Your task to perform on an android device: toggle show notifications on the lock screen Image 0: 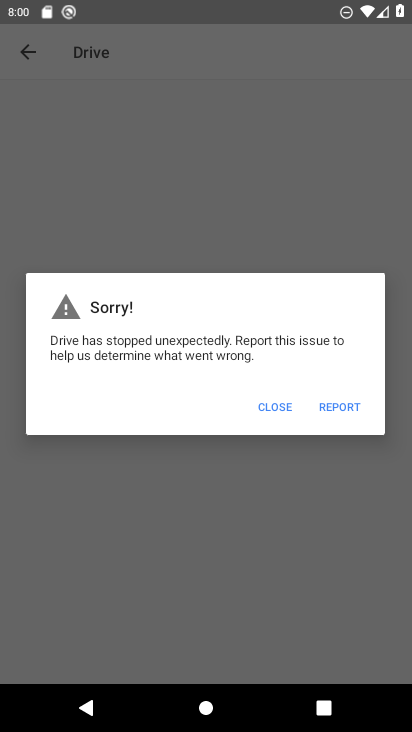
Step 0: press back button
Your task to perform on an android device: toggle show notifications on the lock screen Image 1: 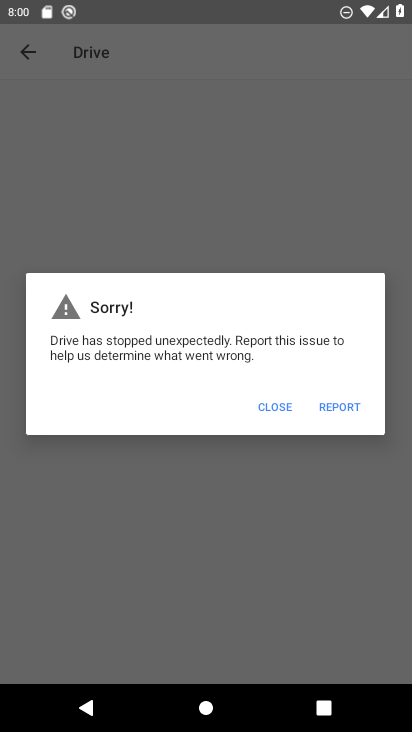
Step 1: press home button
Your task to perform on an android device: toggle show notifications on the lock screen Image 2: 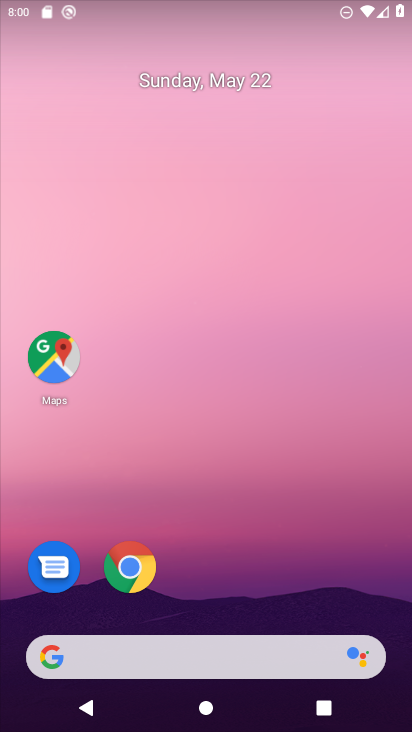
Step 2: drag from (214, 448) to (335, 55)
Your task to perform on an android device: toggle show notifications on the lock screen Image 3: 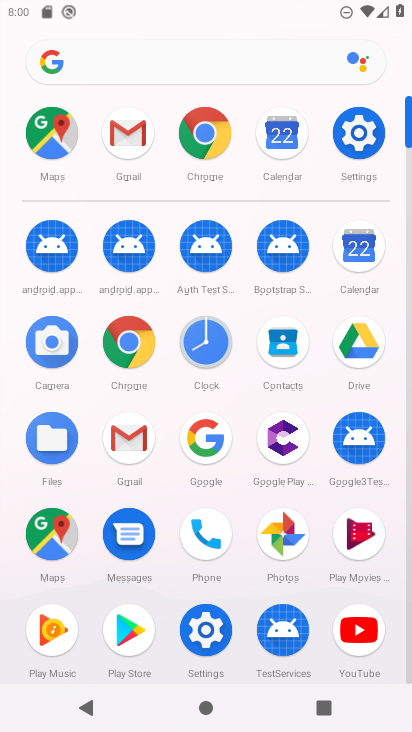
Step 3: click (356, 139)
Your task to perform on an android device: toggle show notifications on the lock screen Image 4: 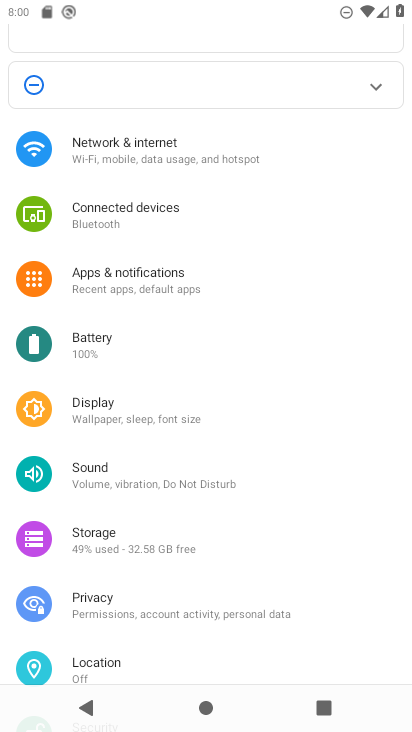
Step 4: click (166, 282)
Your task to perform on an android device: toggle show notifications on the lock screen Image 5: 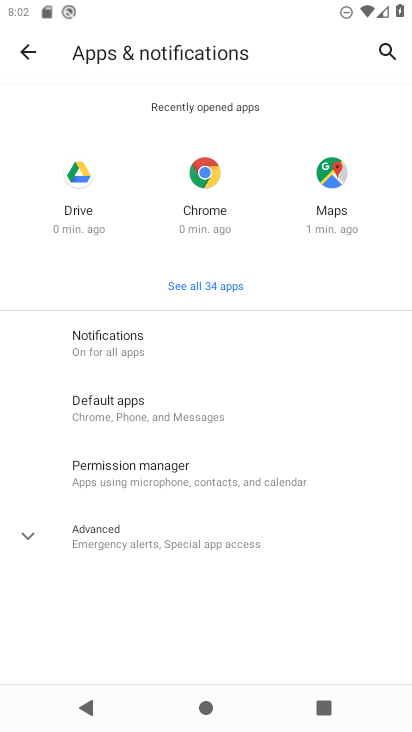
Step 5: click (170, 364)
Your task to perform on an android device: toggle show notifications on the lock screen Image 6: 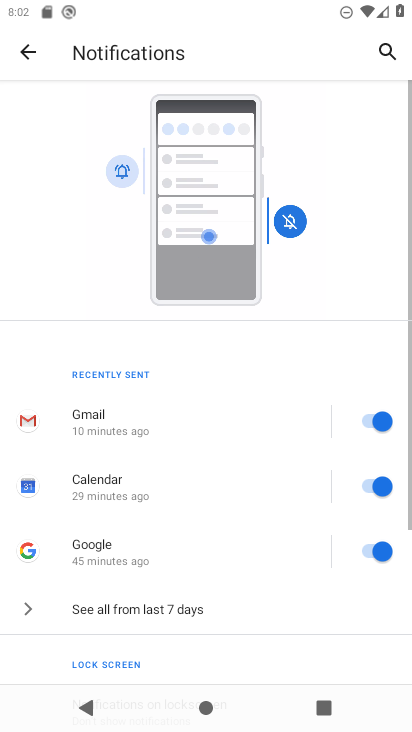
Step 6: drag from (185, 640) to (258, 191)
Your task to perform on an android device: toggle show notifications on the lock screen Image 7: 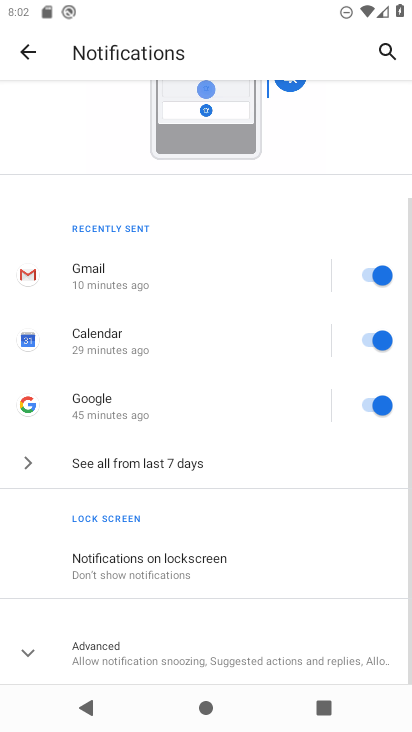
Step 7: click (141, 563)
Your task to perform on an android device: toggle show notifications on the lock screen Image 8: 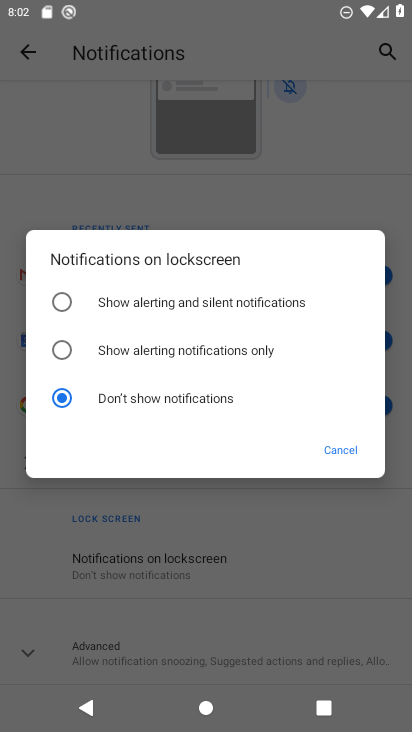
Step 8: click (69, 295)
Your task to perform on an android device: toggle show notifications on the lock screen Image 9: 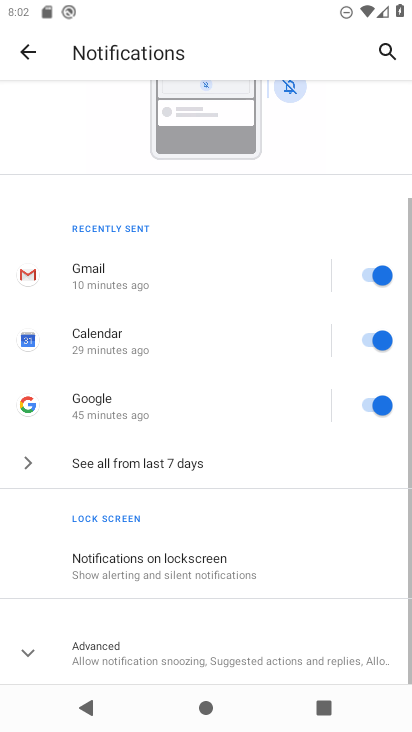
Step 9: task complete